Your task to perform on an android device: Open the calendar and show me this week's events? Image 0: 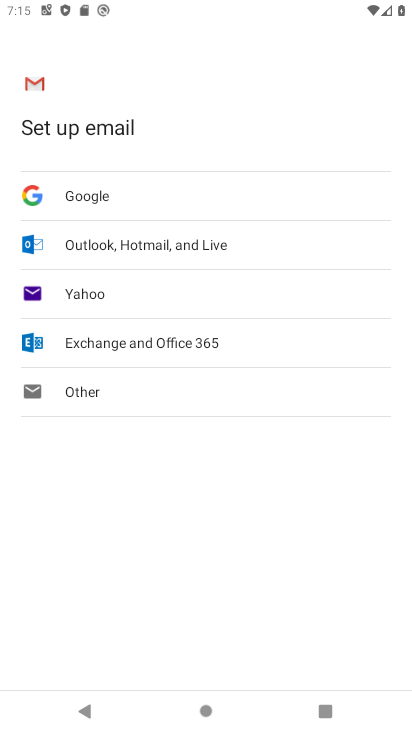
Step 0: press home button
Your task to perform on an android device: Open the calendar and show me this week's events? Image 1: 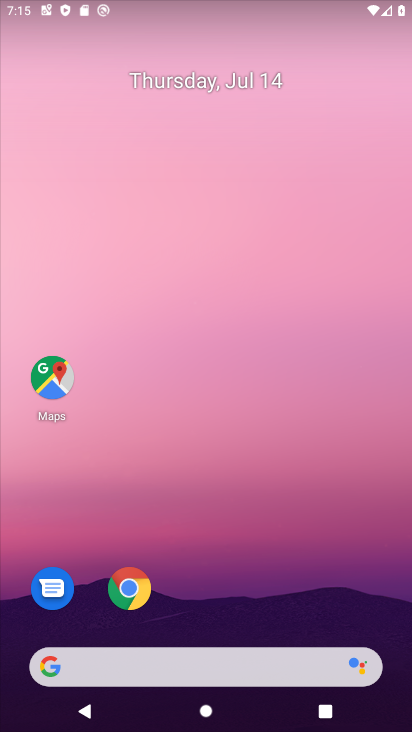
Step 1: drag from (407, 653) to (307, 0)
Your task to perform on an android device: Open the calendar and show me this week's events? Image 2: 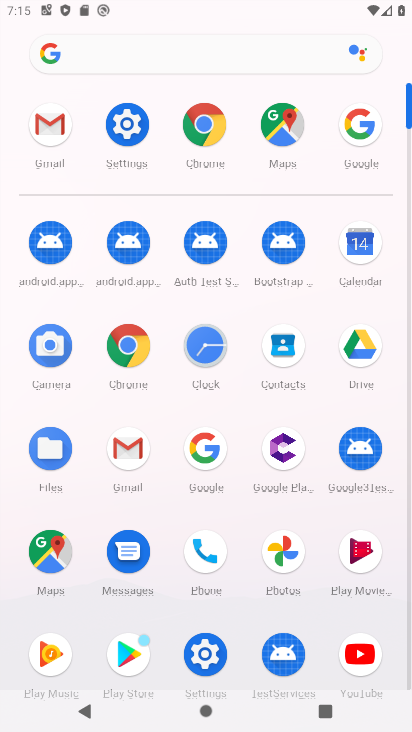
Step 2: click (361, 255)
Your task to perform on an android device: Open the calendar and show me this week's events? Image 3: 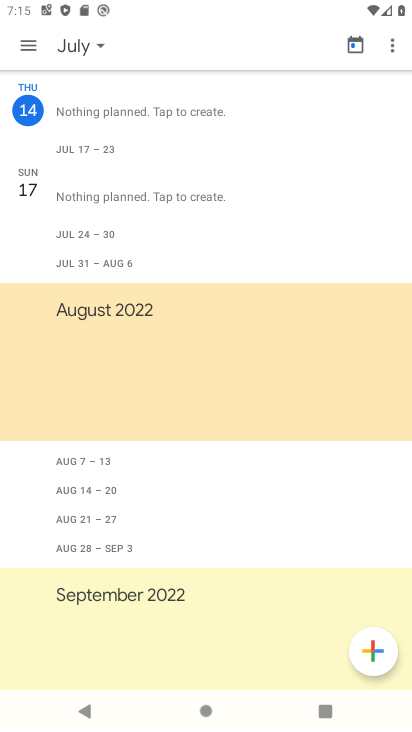
Step 3: click (23, 49)
Your task to perform on an android device: Open the calendar and show me this week's events? Image 4: 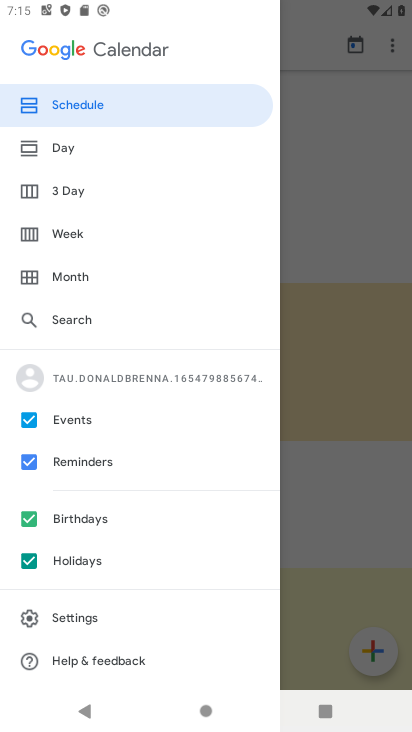
Step 4: click (64, 426)
Your task to perform on an android device: Open the calendar and show me this week's events? Image 5: 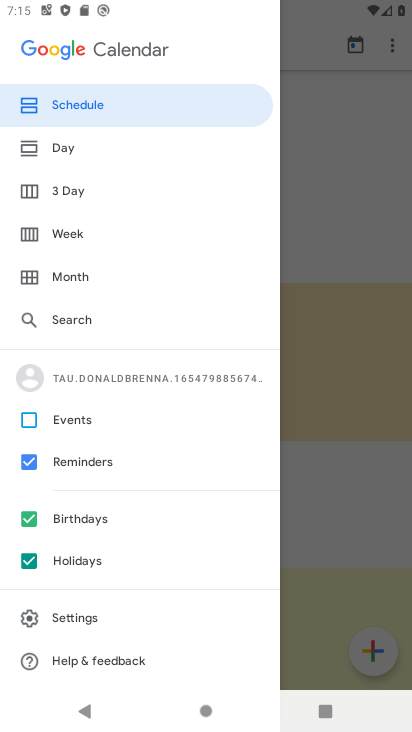
Step 5: click (64, 426)
Your task to perform on an android device: Open the calendar and show me this week's events? Image 6: 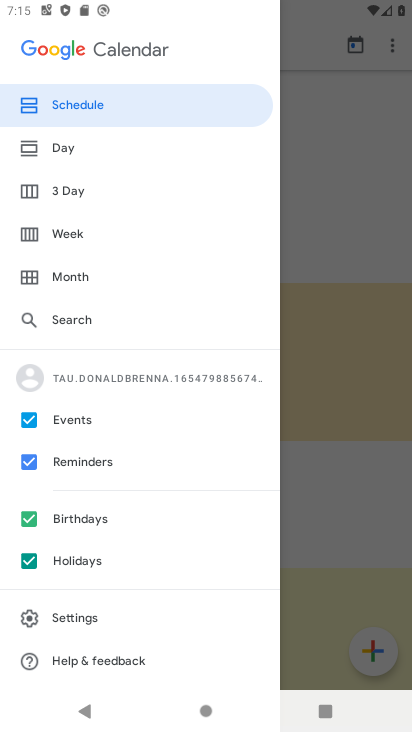
Step 6: task complete